Your task to perform on an android device: clear history in the chrome app Image 0: 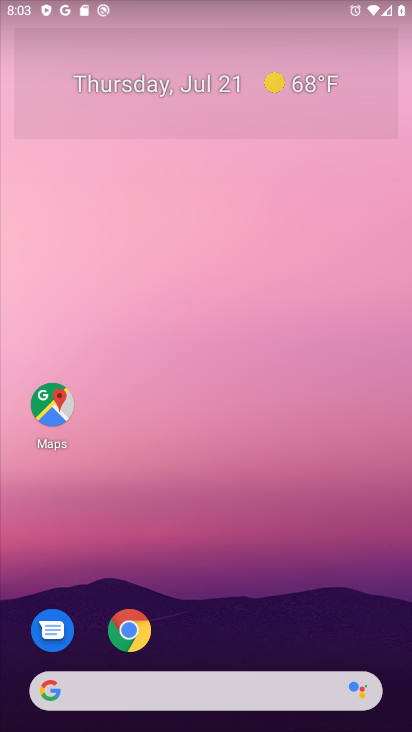
Step 0: drag from (211, 620) to (18, 389)
Your task to perform on an android device: clear history in the chrome app Image 1: 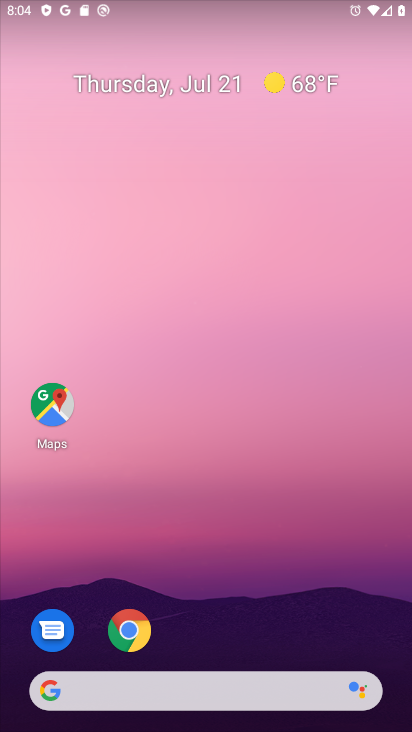
Step 1: drag from (361, 609) to (268, 0)
Your task to perform on an android device: clear history in the chrome app Image 2: 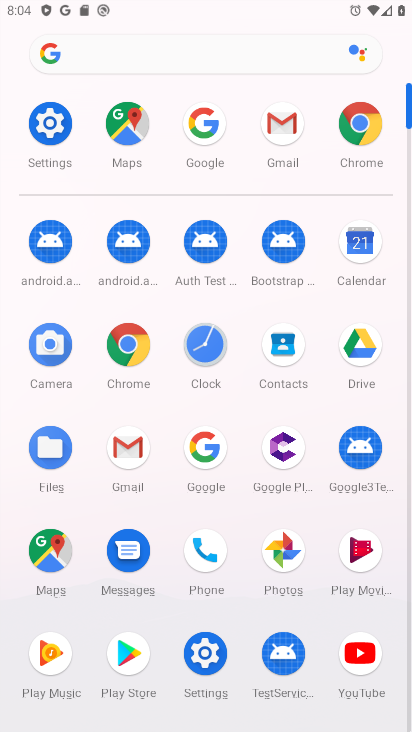
Step 2: click (364, 127)
Your task to perform on an android device: clear history in the chrome app Image 3: 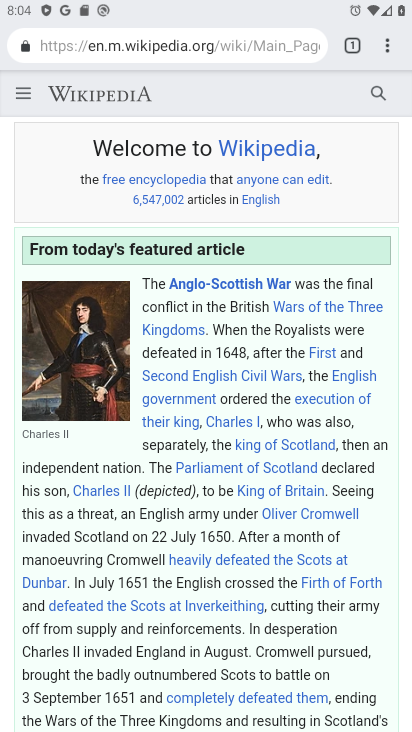
Step 3: drag from (386, 54) to (255, 248)
Your task to perform on an android device: clear history in the chrome app Image 4: 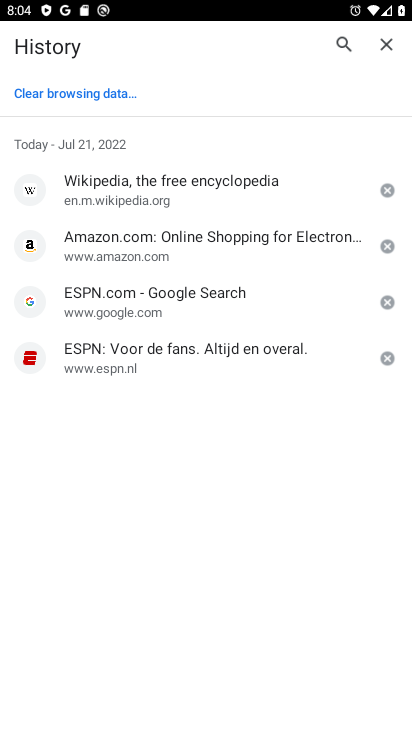
Step 4: click (34, 97)
Your task to perform on an android device: clear history in the chrome app Image 5: 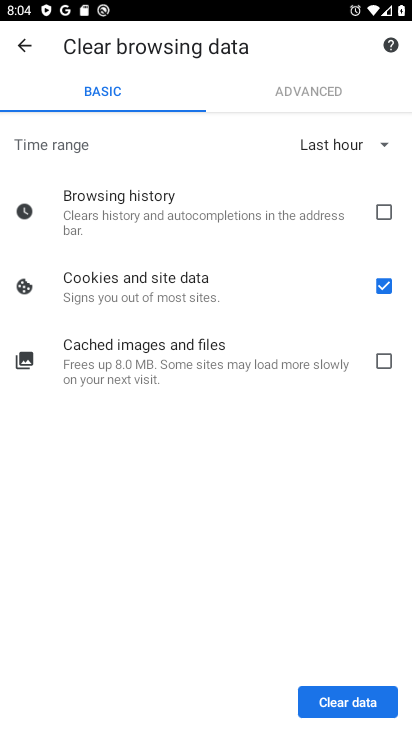
Step 5: click (341, 704)
Your task to perform on an android device: clear history in the chrome app Image 6: 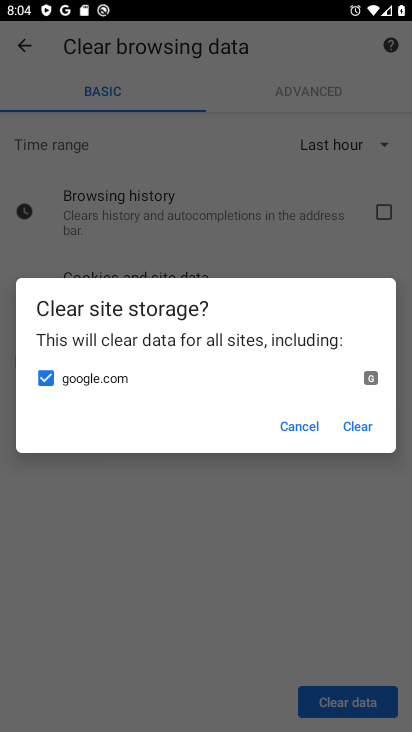
Step 6: click (360, 425)
Your task to perform on an android device: clear history in the chrome app Image 7: 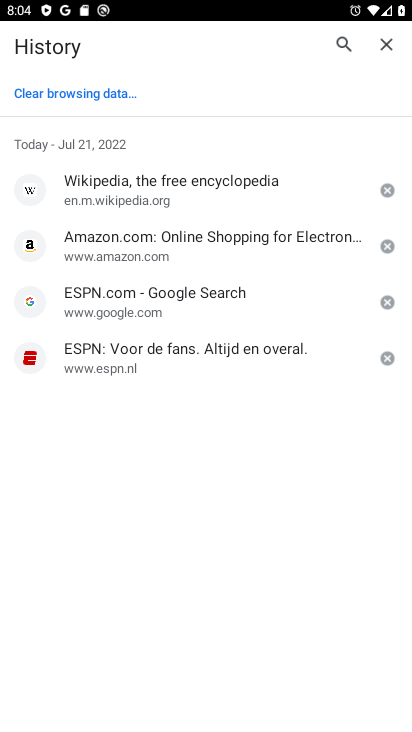
Step 7: task complete